Your task to perform on an android device: turn on data saver in the chrome app Image 0: 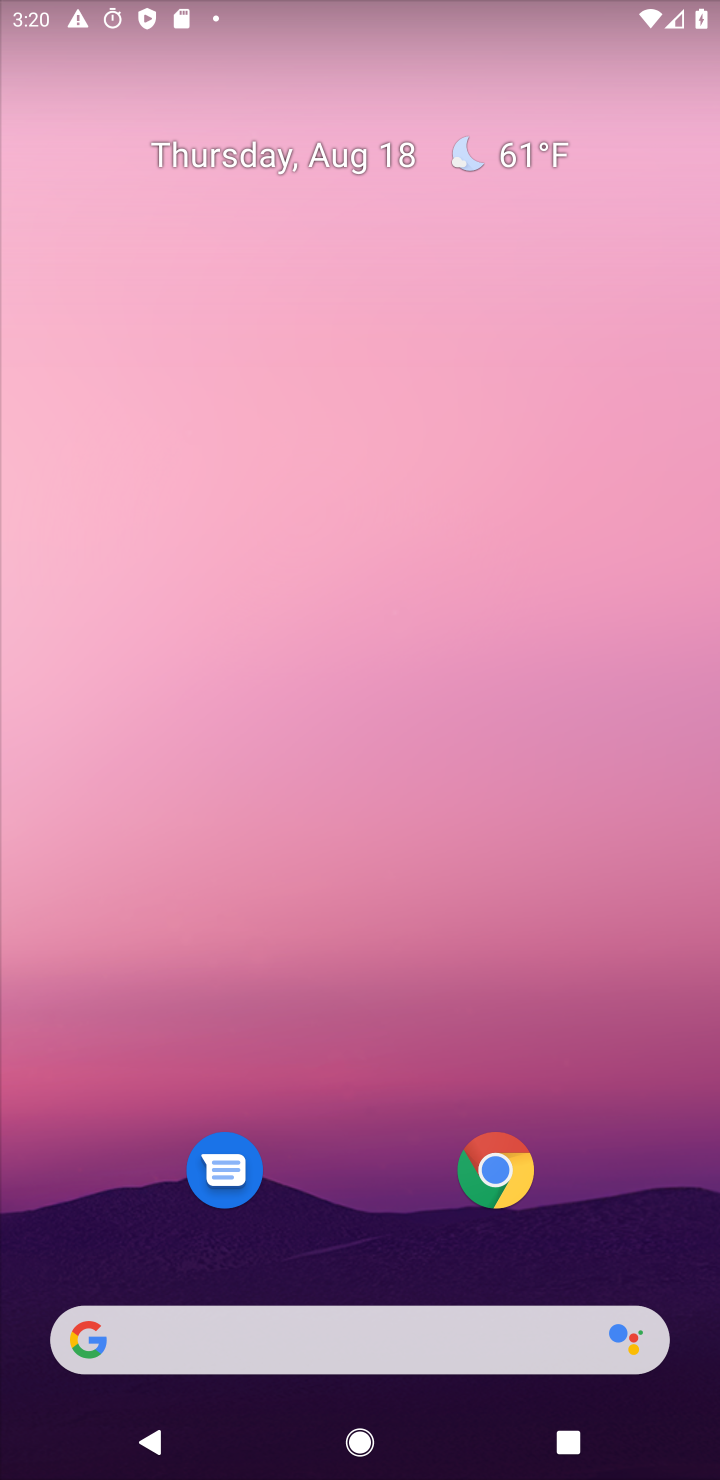
Step 0: press home button
Your task to perform on an android device: turn on data saver in the chrome app Image 1: 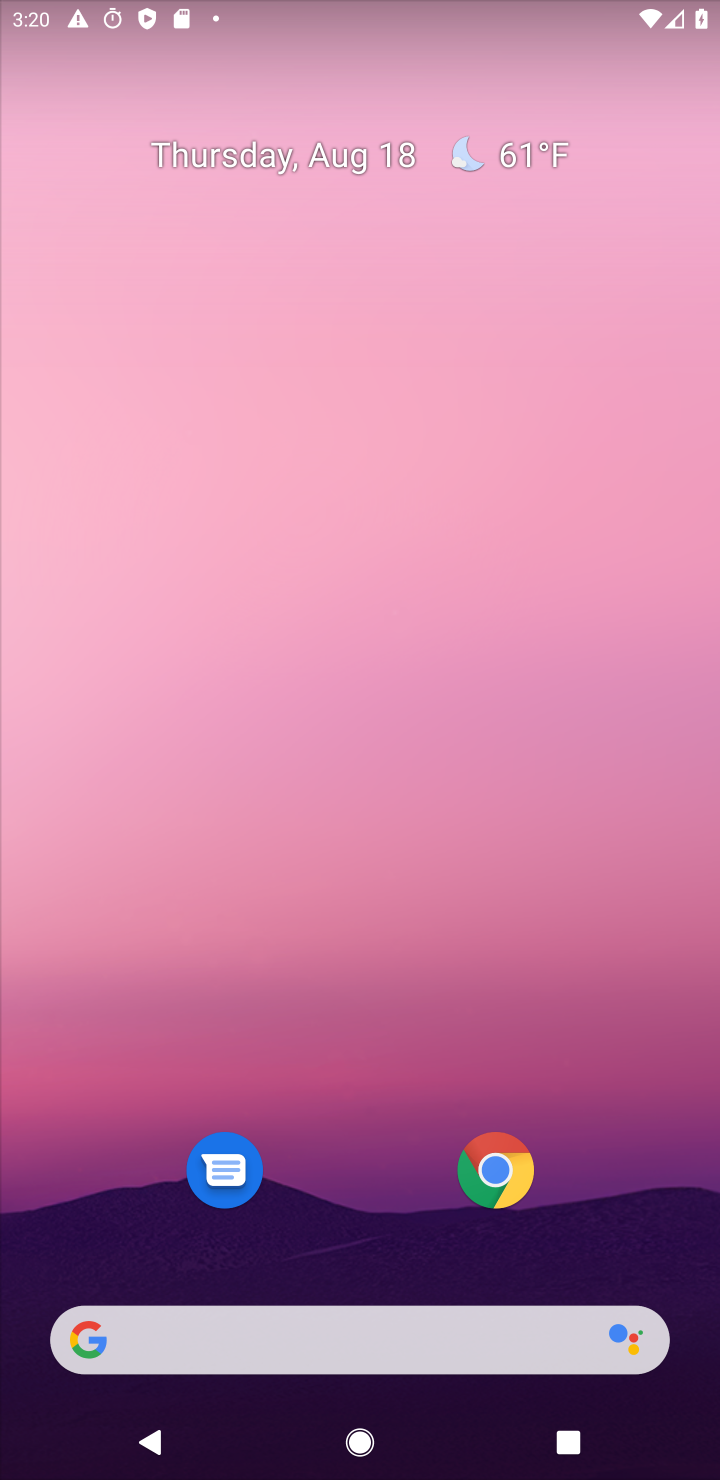
Step 1: click (501, 1159)
Your task to perform on an android device: turn on data saver in the chrome app Image 2: 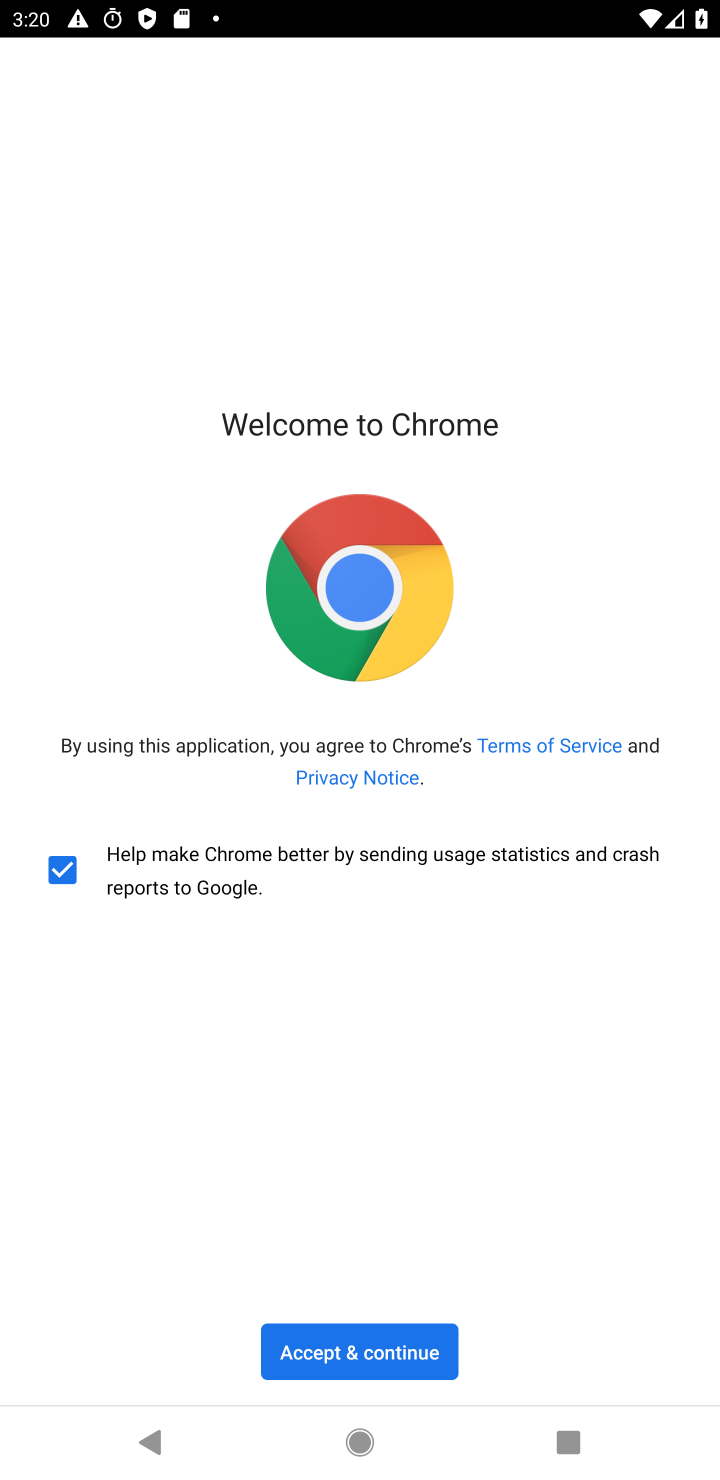
Step 2: click (323, 1360)
Your task to perform on an android device: turn on data saver in the chrome app Image 3: 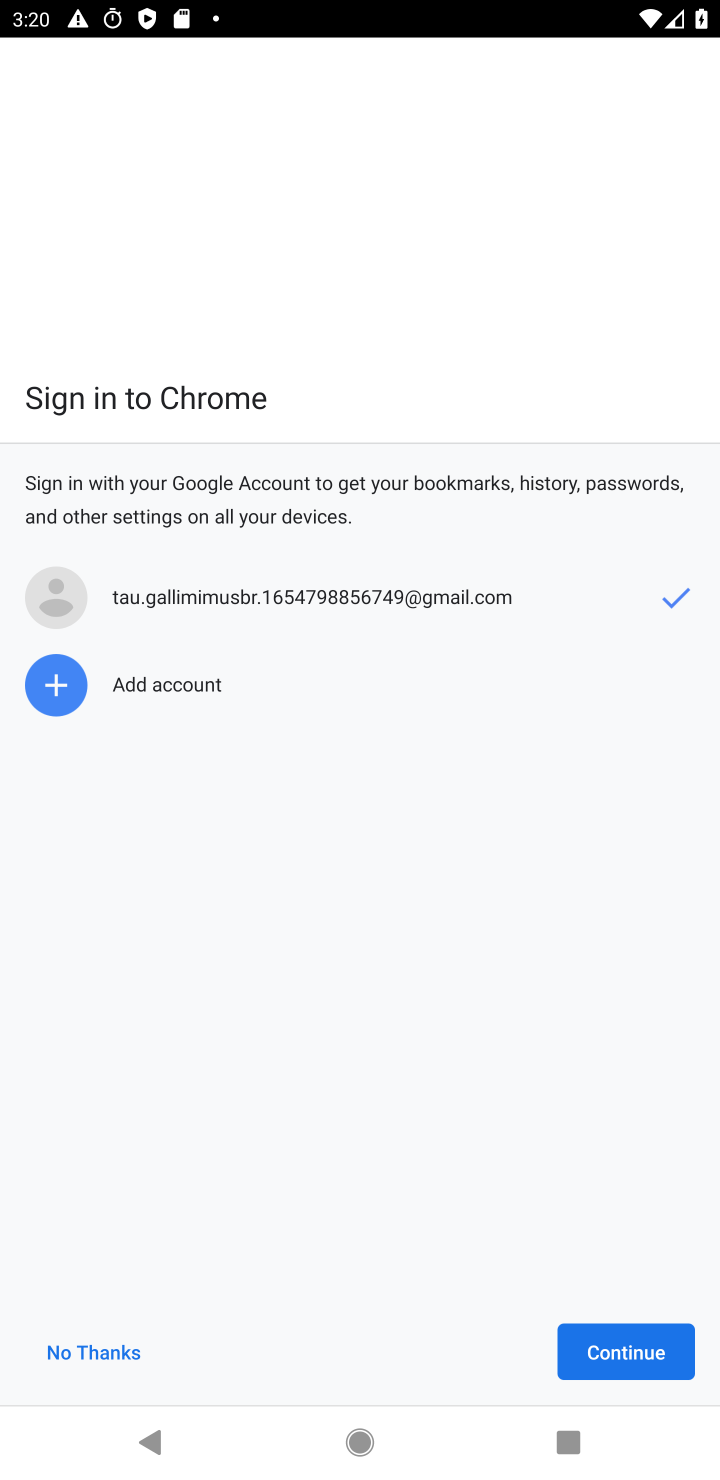
Step 3: click (625, 1338)
Your task to perform on an android device: turn on data saver in the chrome app Image 4: 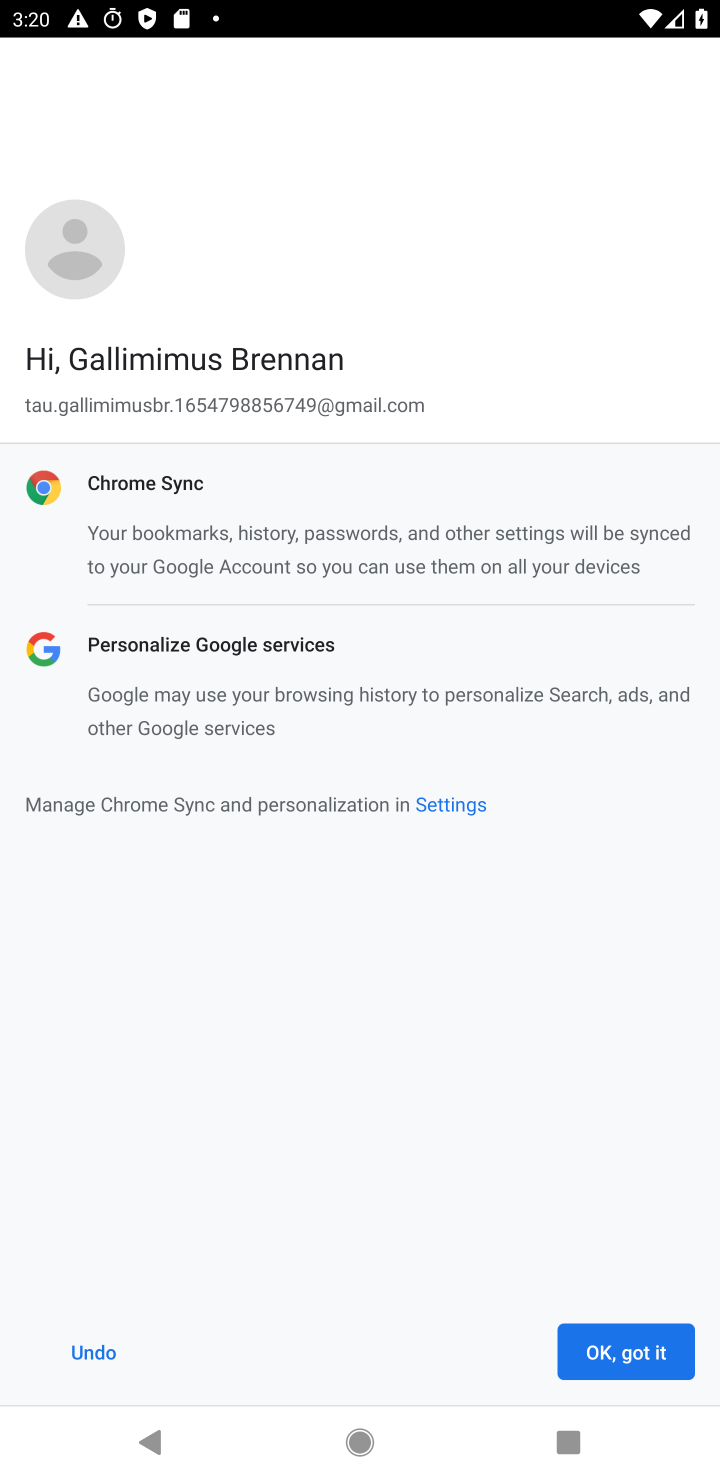
Step 4: click (609, 1354)
Your task to perform on an android device: turn on data saver in the chrome app Image 5: 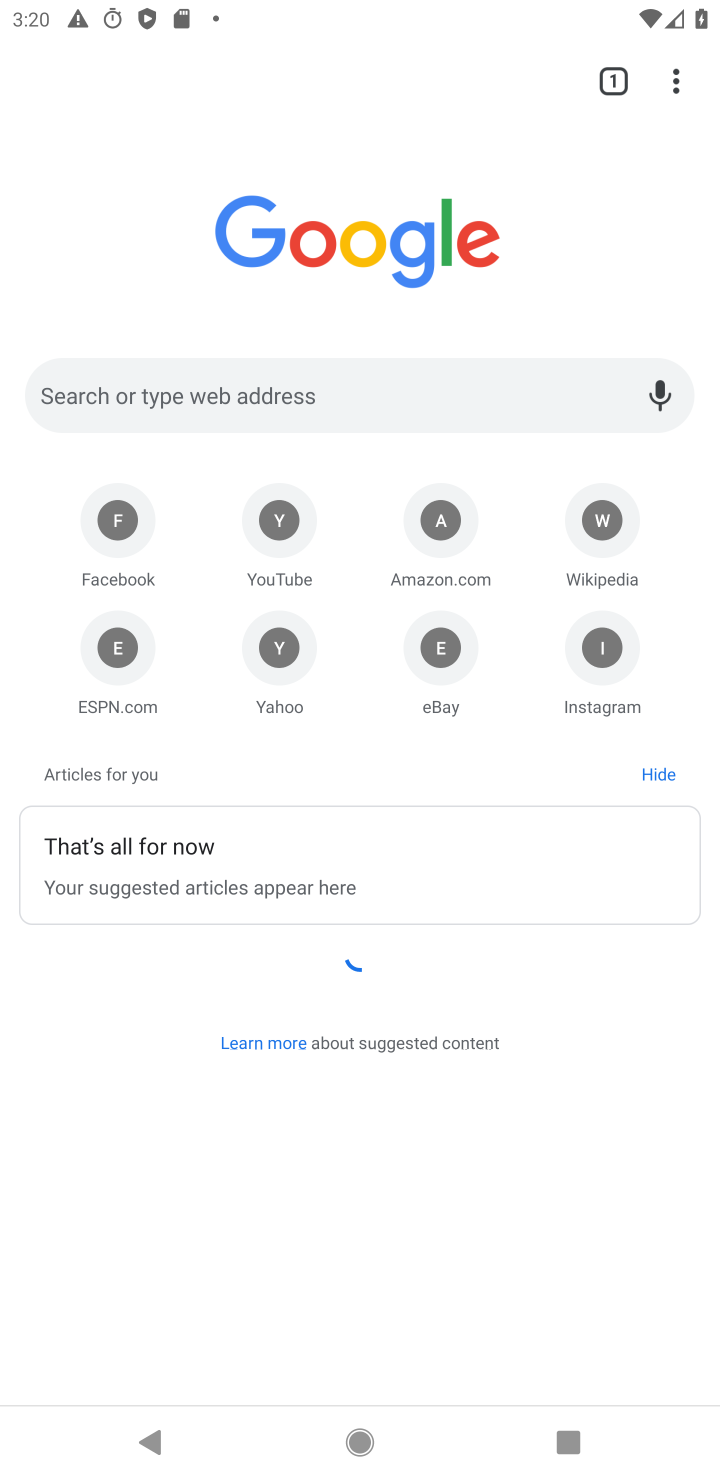
Step 5: click (680, 86)
Your task to perform on an android device: turn on data saver in the chrome app Image 6: 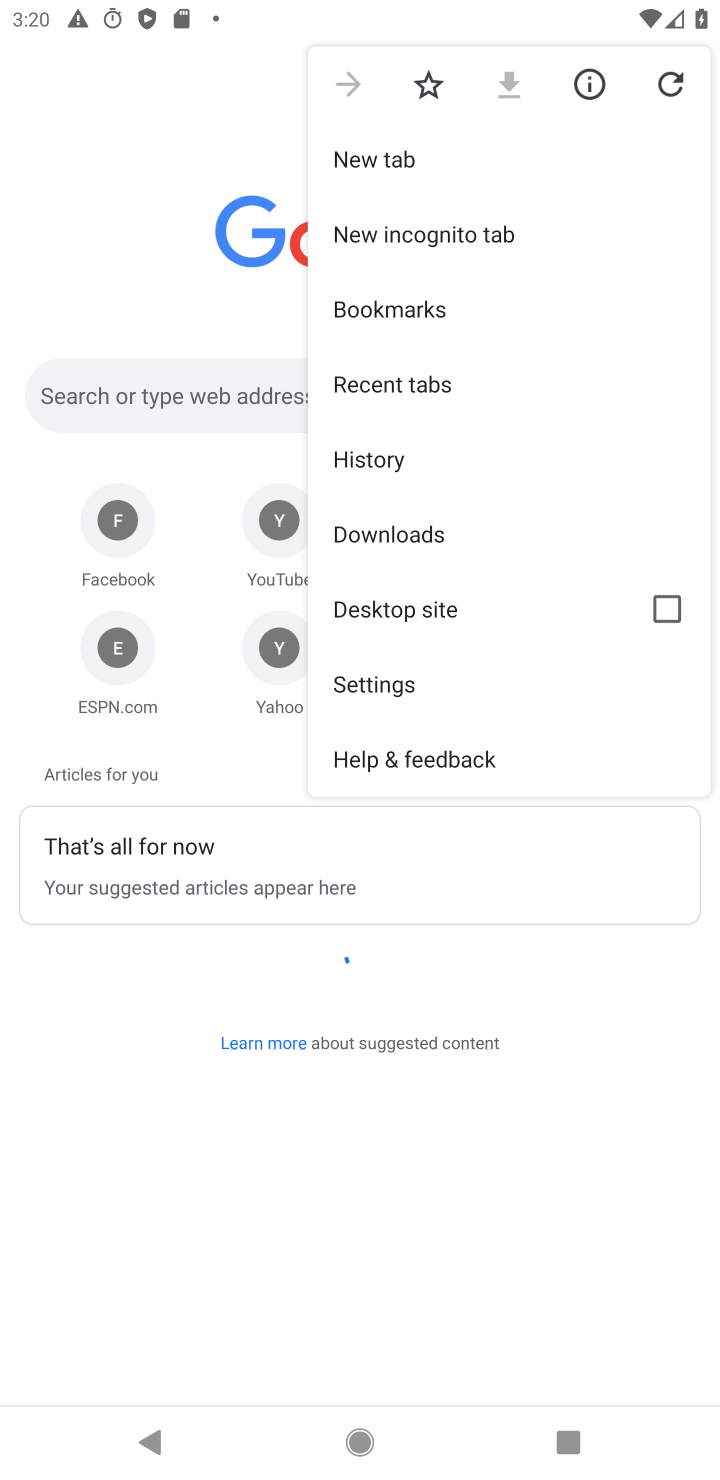
Step 6: click (373, 673)
Your task to perform on an android device: turn on data saver in the chrome app Image 7: 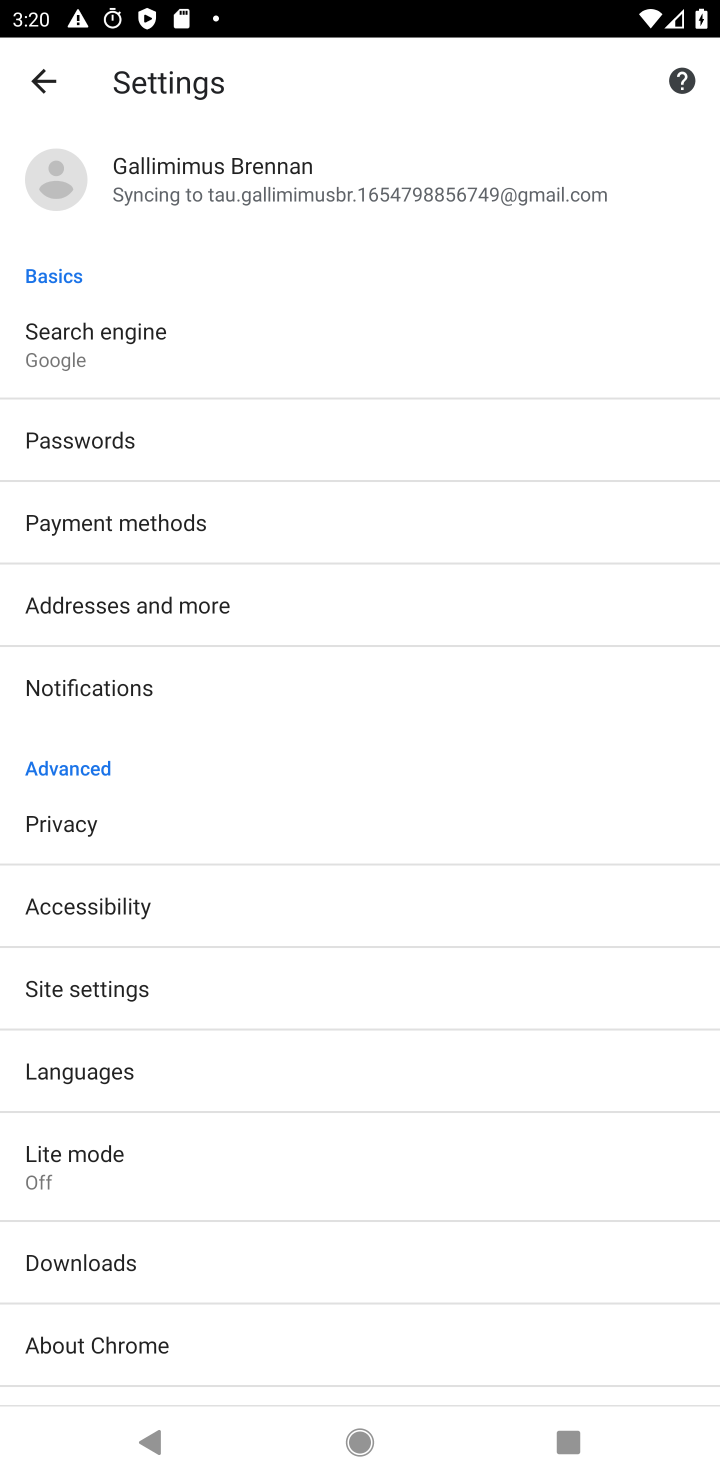
Step 7: click (112, 988)
Your task to perform on an android device: turn on data saver in the chrome app Image 8: 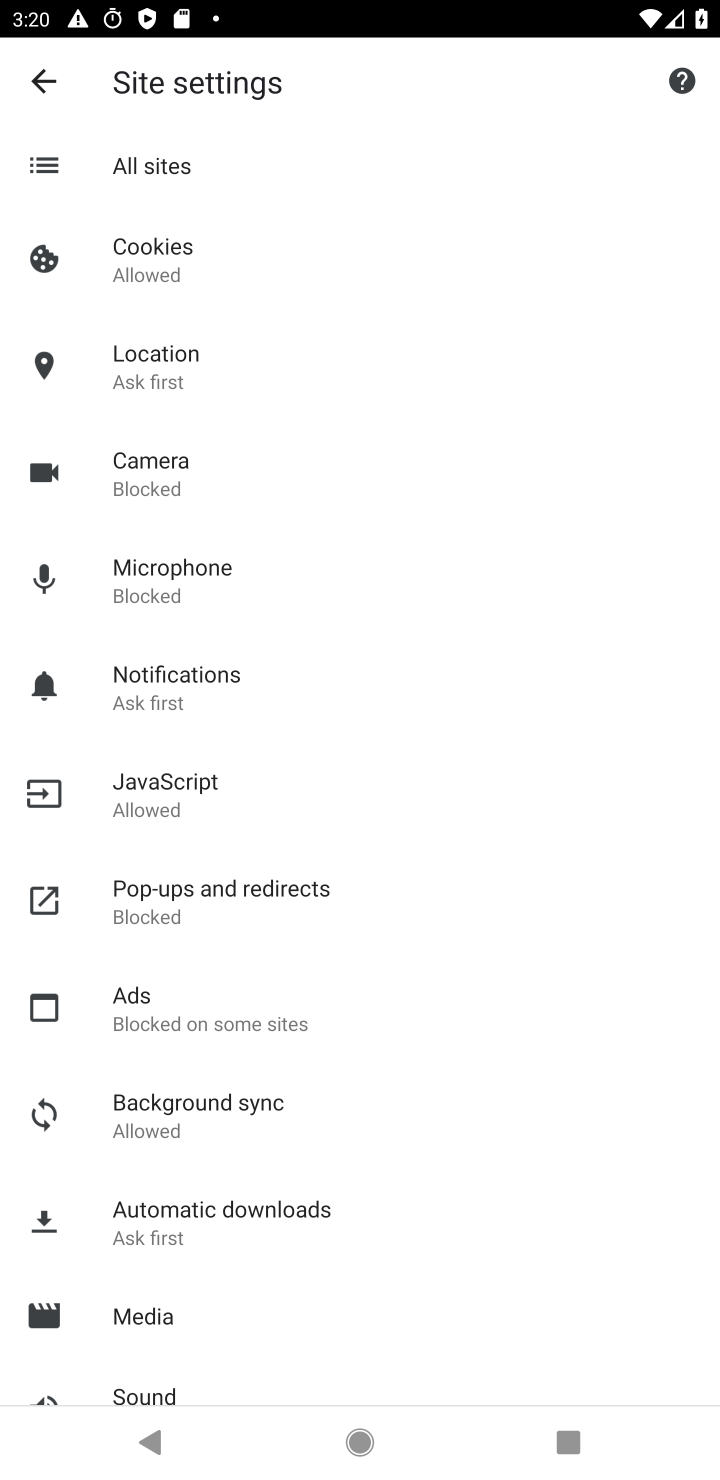
Step 8: task complete